Your task to perform on an android device: Search for vegetarian restaurants on Maps Image 0: 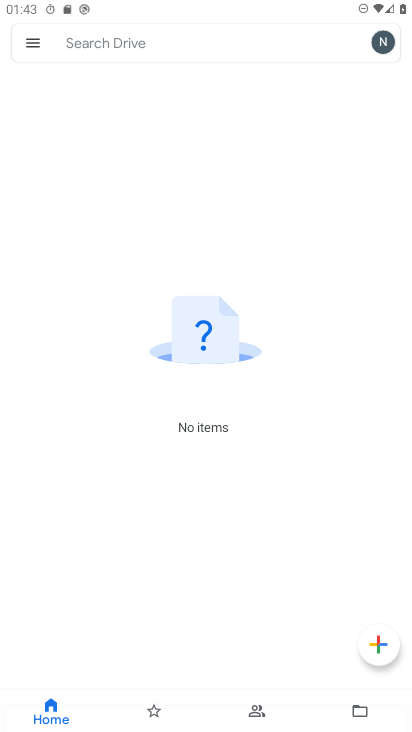
Step 0: press home button
Your task to perform on an android device: Search for vegetarian restaurants on Maps Image 1: 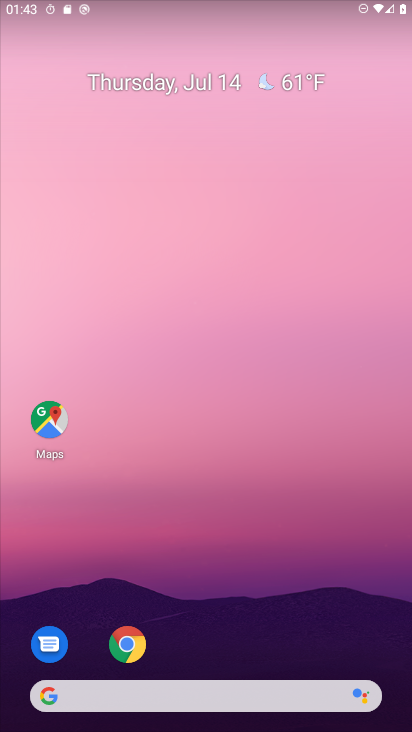
Step 1: drag from (259, 505) to (283, 0)
Your task to perform on an android device: Search for vegetarian restaurants on Maps Image 2: 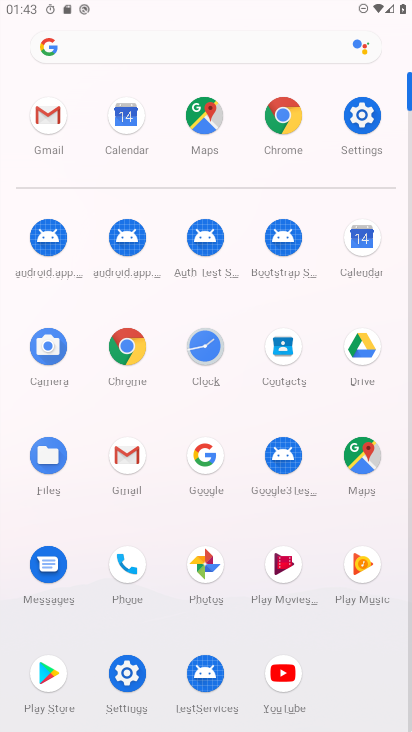
Step 2: click (205, 121)
Your task to perform on an android device: Search for vegetarian restaurants on Maps Image 3: 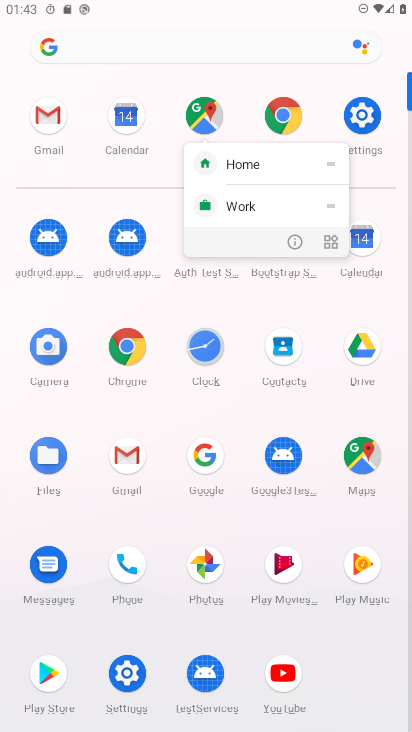
Step 3: click (211, 113)
Your task to perform on an android device: Search for vegetarian restaurants on Maps Image 4: 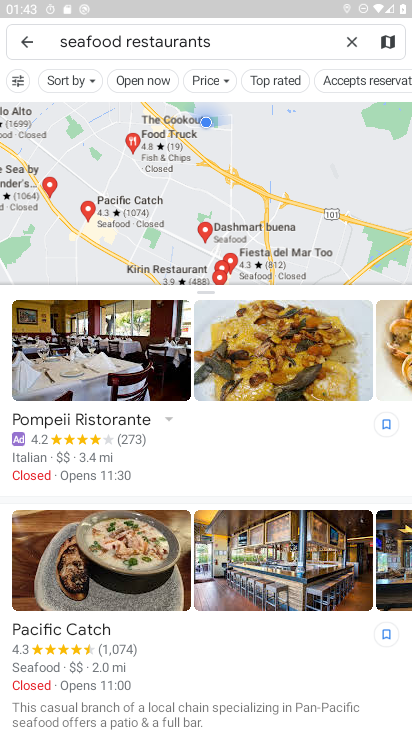
Step 4: click (247, 41)
Your task to perform on an android device: Search for vegetarian restaurants on Maps Image 5: 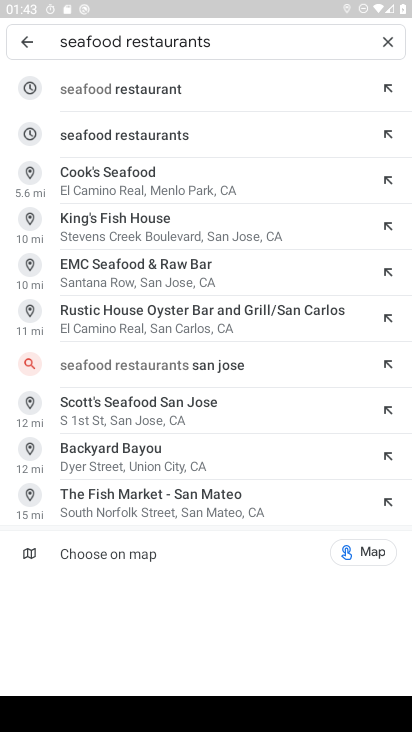
Step 5: click (388, 41)
Your task to perform on an android device: Search for vegetarian restaurants on Maps Image 6: 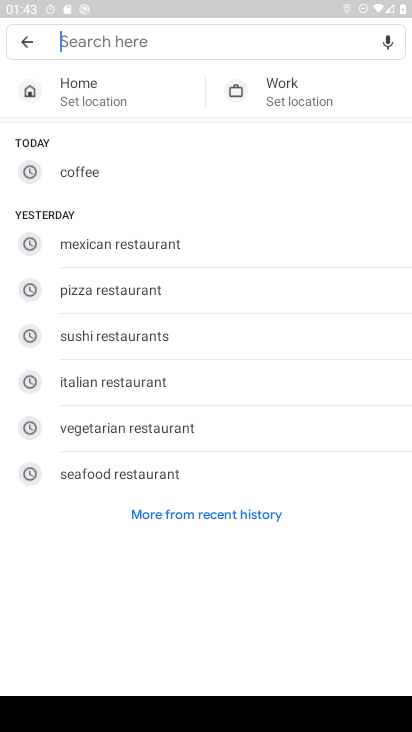
Step 6: type "vegetarian restaurants"
Your task to perform on an android device: Search for vegetarian restaurants on Maps Image 7: 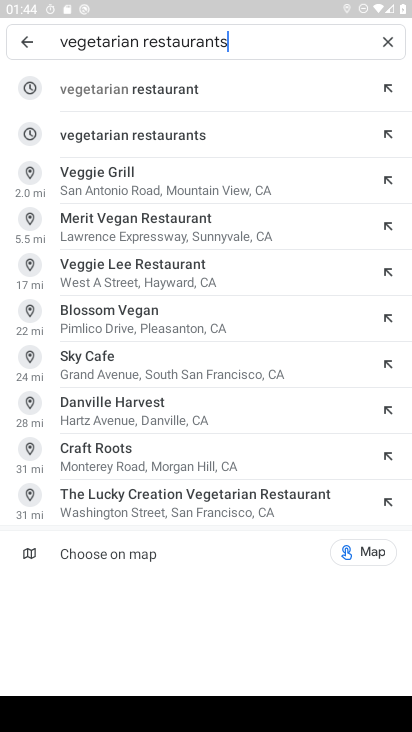
Step 7: press enter
Your task to perform on an android device: Search for vegetarian restaurants on Maps Image 8: 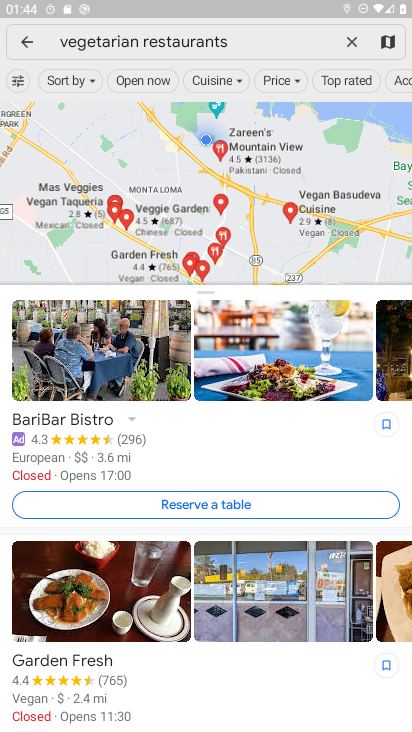
Step 8: task complete